Your task to perform on an android device: Open CNN.com Image 0: 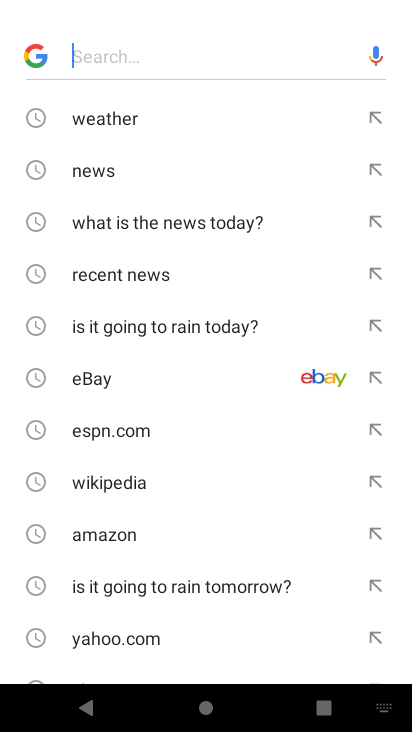
Step 0: drag from (171, 618) to (157, 330)
Your task to perform on an android device: Open CNN.com Image 1: 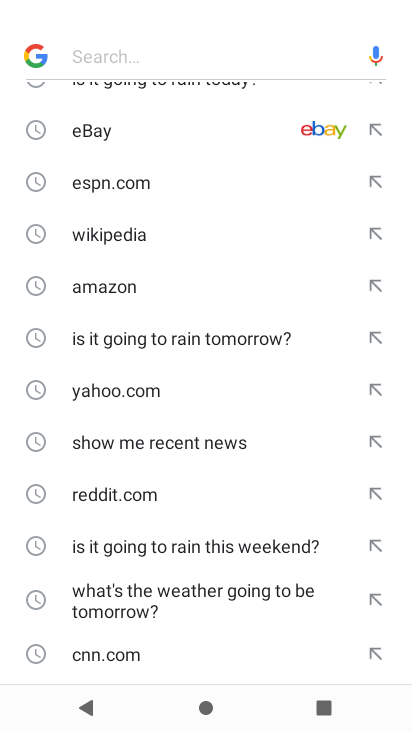
Step 1: click (120, 652)
Your task to perform on an android device: Open CNN.com Image 2: 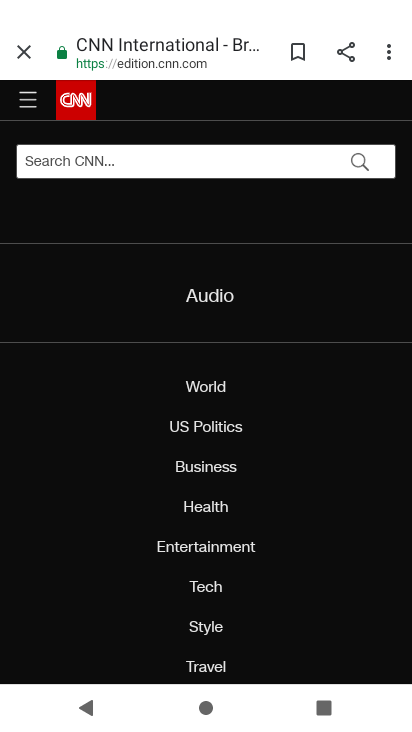
Step 2: task complete